Your task to perform on an android device: search for starred emails in the gmail app Image 0: 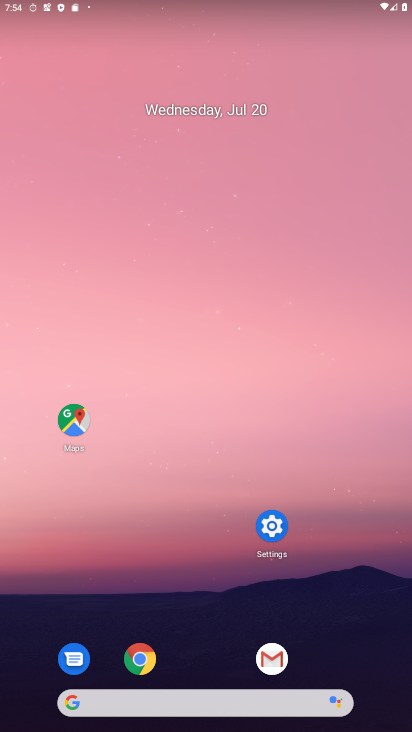
Step 0: click (268, 653)
Your task to perform on an android device: search for starred emails in the gmail app Image 1: 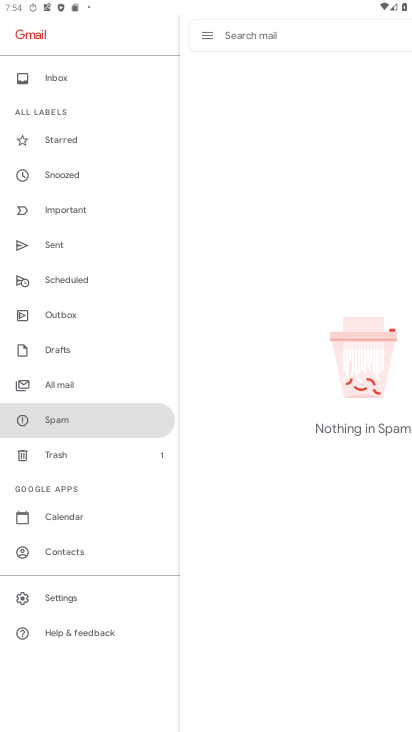
Step 1: click (65, 146)
Your task to perform on an android device: search for starred emails in the gmail app Image 2: 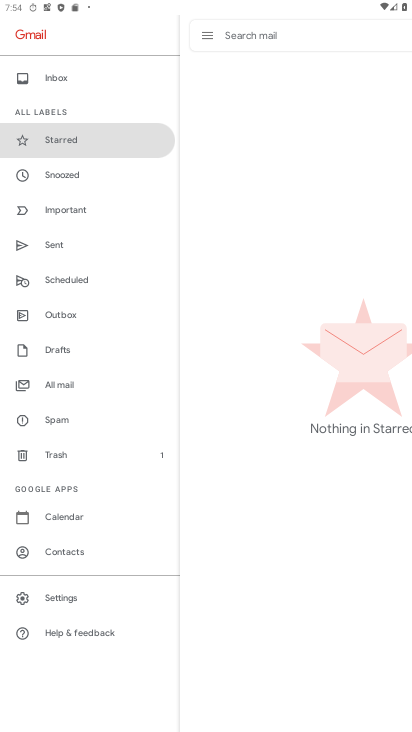
Step 2: task complete